Your task to perform on an android device: open app "Spotify: Music and Podcasts" (install if not already installed) Image 0: 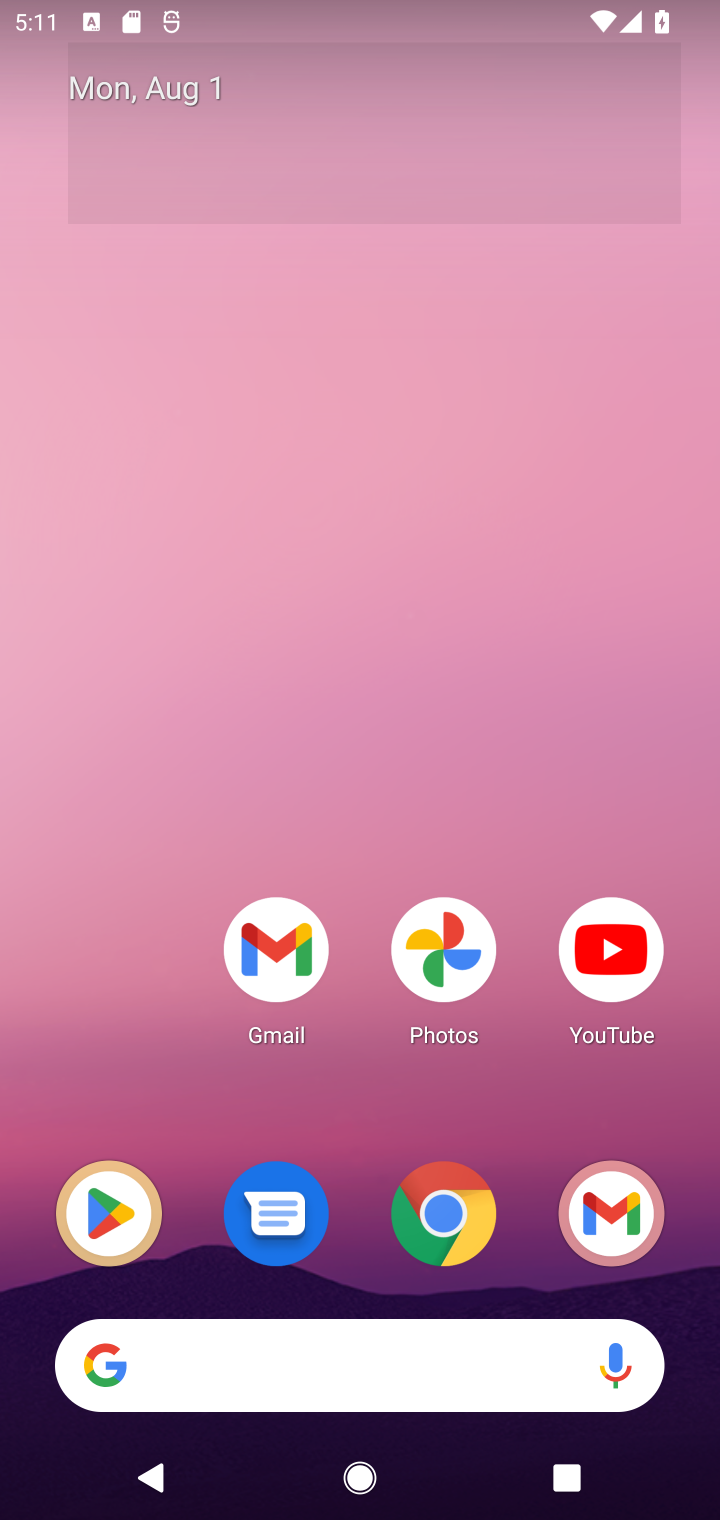
Step 0: drag from (674, 1100) to (632, 109)
Your task to perform on an android device: open app "Spotify: Music and Podcasts" (install if not already installed) Image 1: 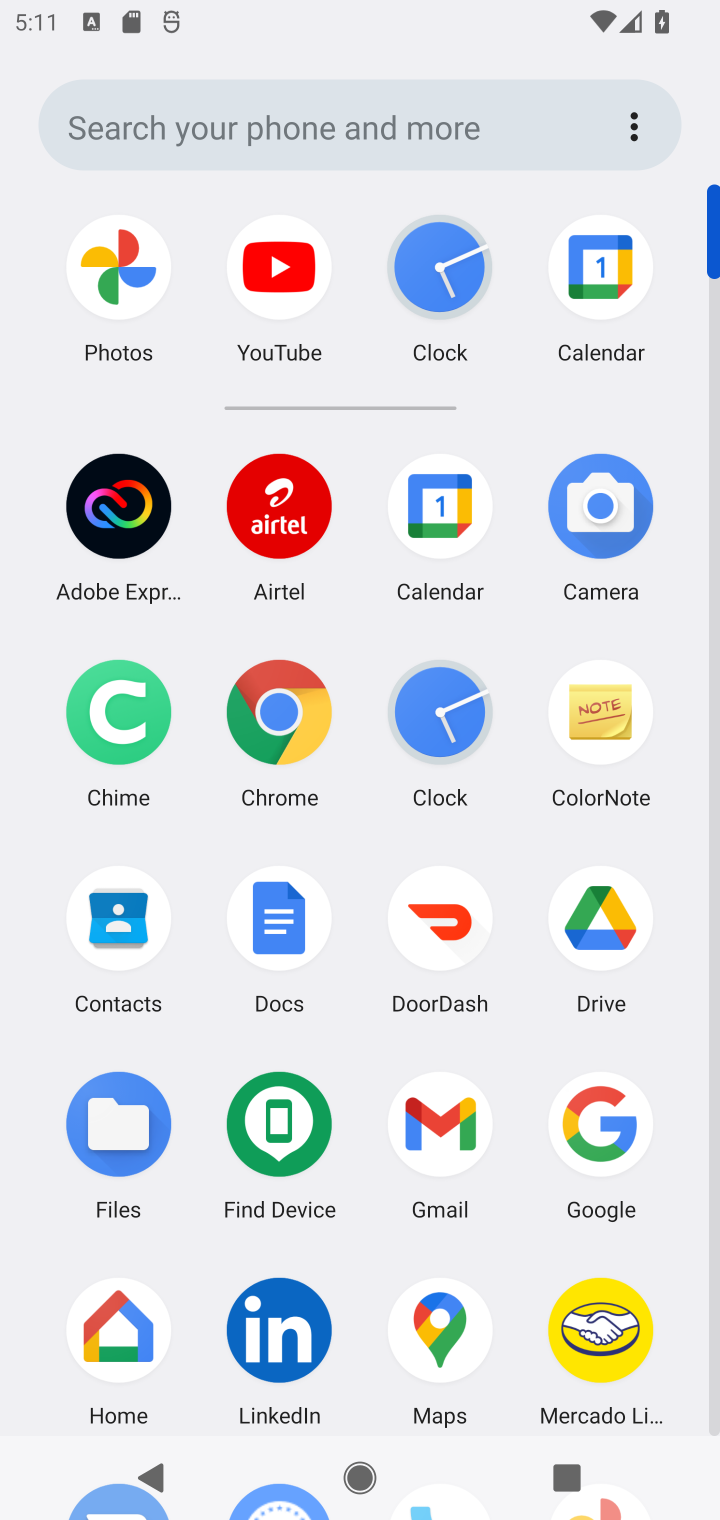
Step 1: drag from (371, 1250) to (450, 664)
Your task to perform on an android device: open app "Spotify: Music and Podcasts" (install if not already installed) Image 2: 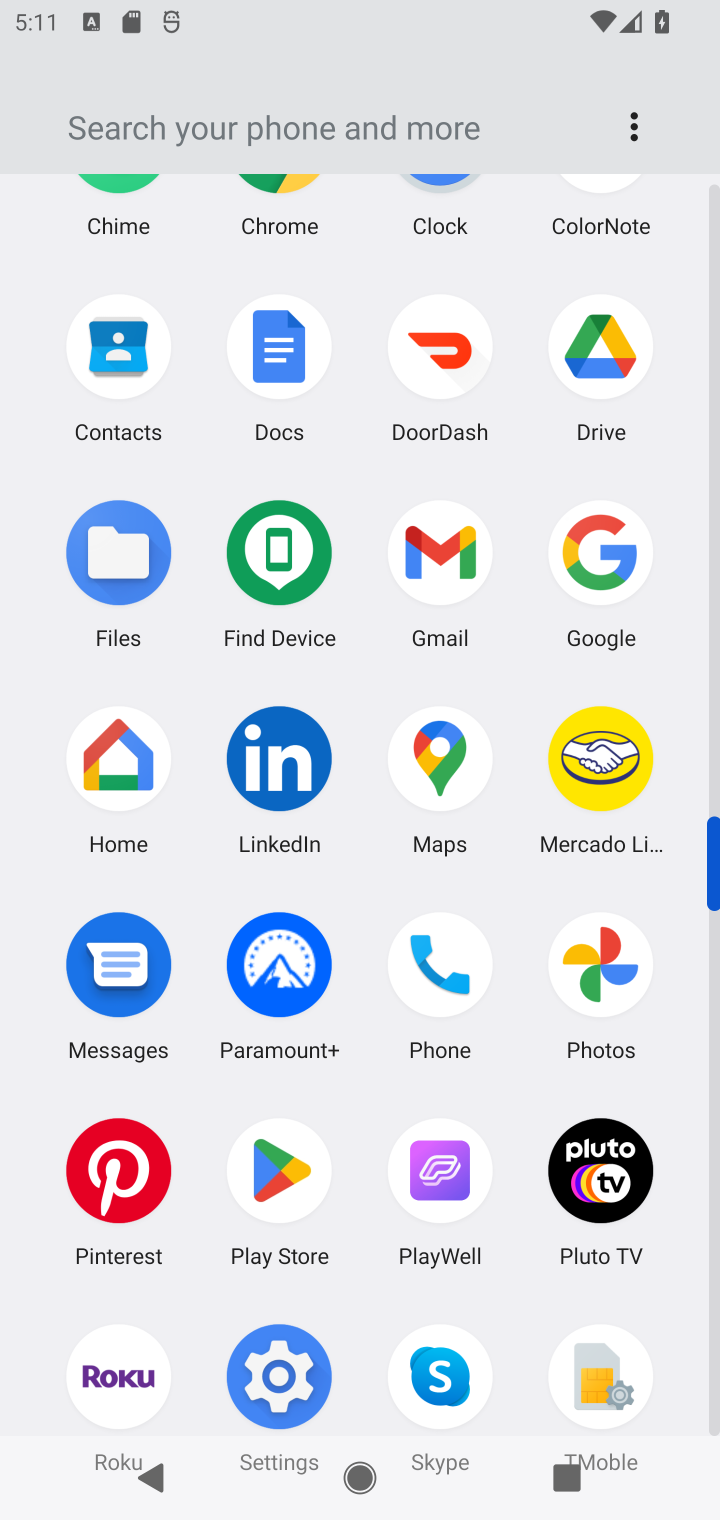
Step 2: click (277, 1171)
Your task to perform on an android device: open app "Spotify: Music and Podcasts" (install if not already installed) Image 3: 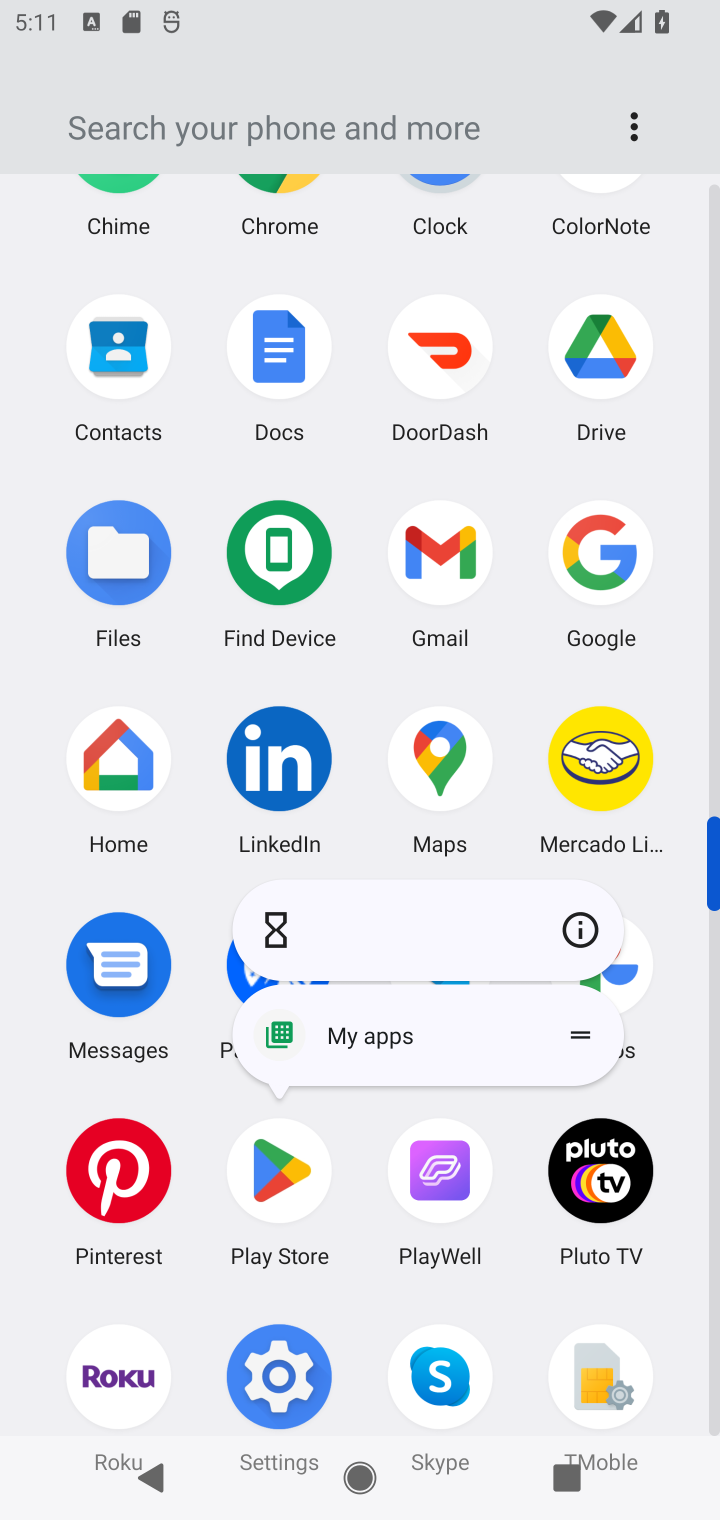
Step 3: click (277, 1169)
Your task to perform on an android device: open app "Spotify: Music and Podcasts" (install if not already installed) Image 4: 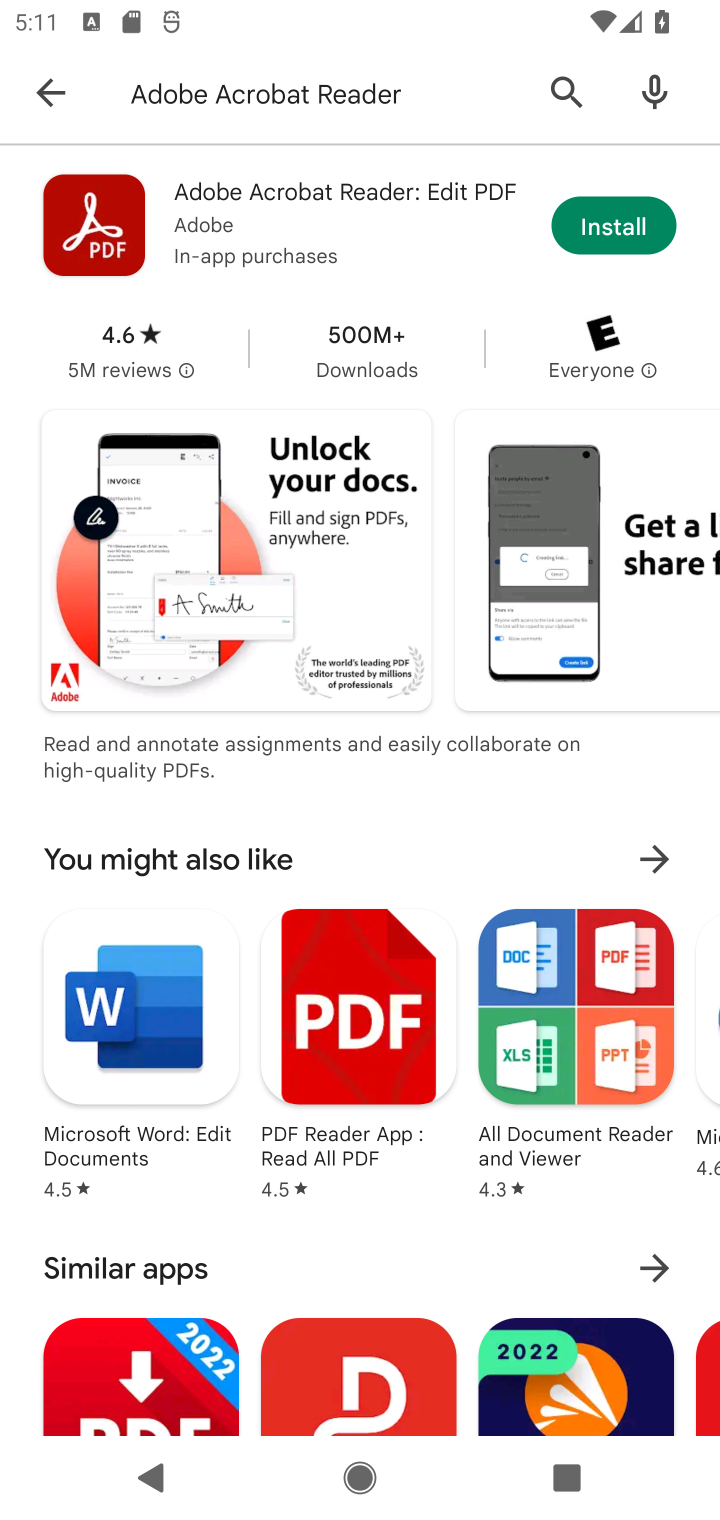
Step 4: click (465, 60)
Your task to perform on an android device: open app "Spotify: Music and Podcasts" (install if not already installed) Image 5: 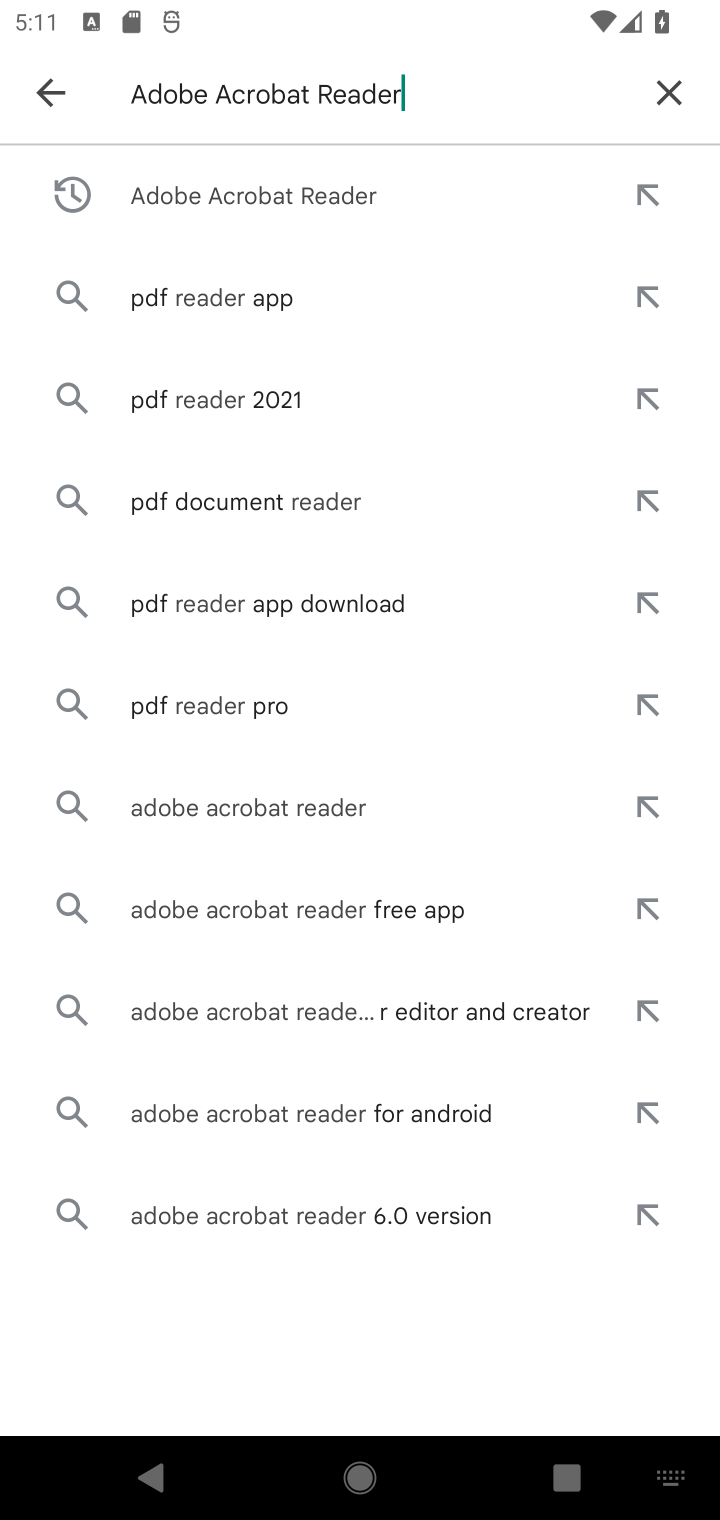
Step 5: click (660, 96)
Your task to perform on an android device: open app "Spotify: Music and Podcasts" (install if not already installed) Image 6: 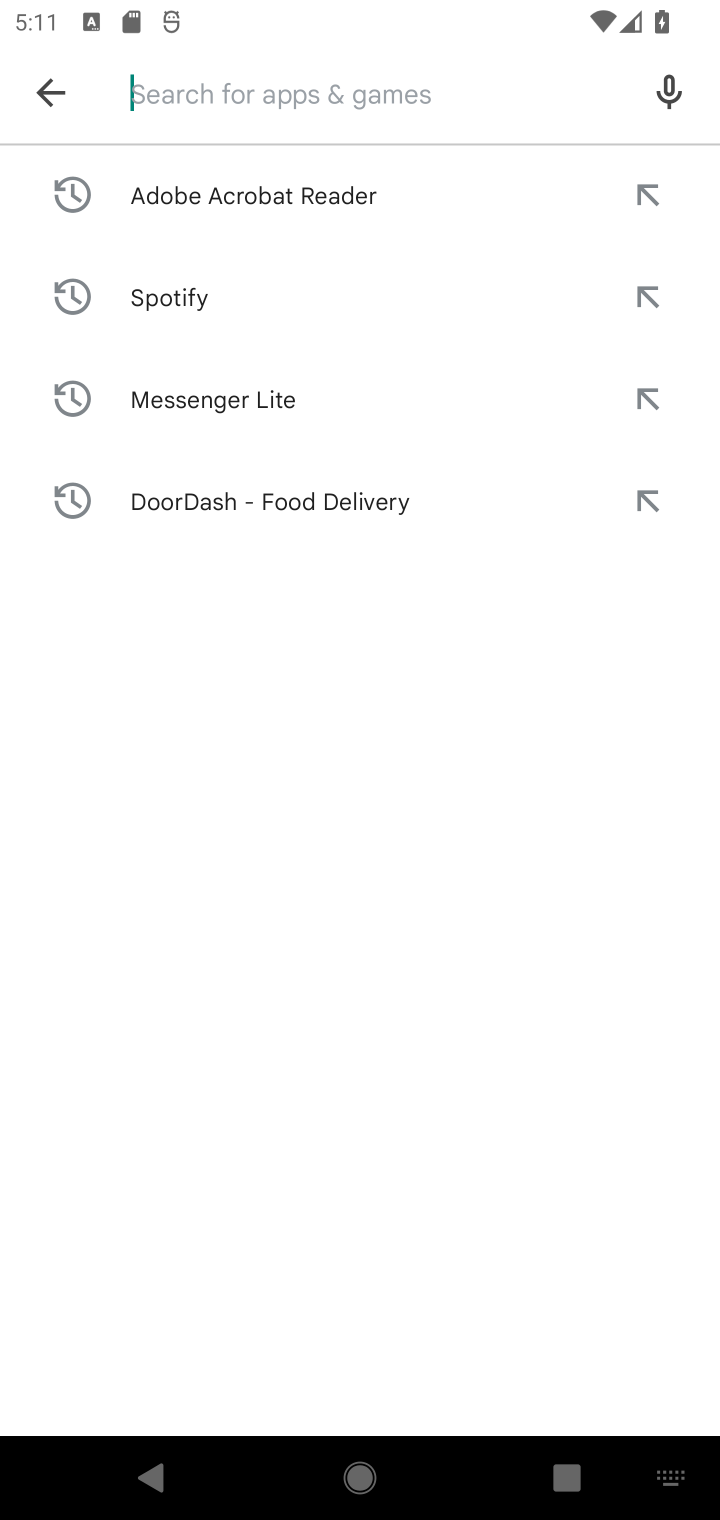
Step 6: type "Spotify: Music and Podcasts"
Your task to perform on an android device: open app "Spotify: Music and Podcasts" (install if not already installed) Image 7: 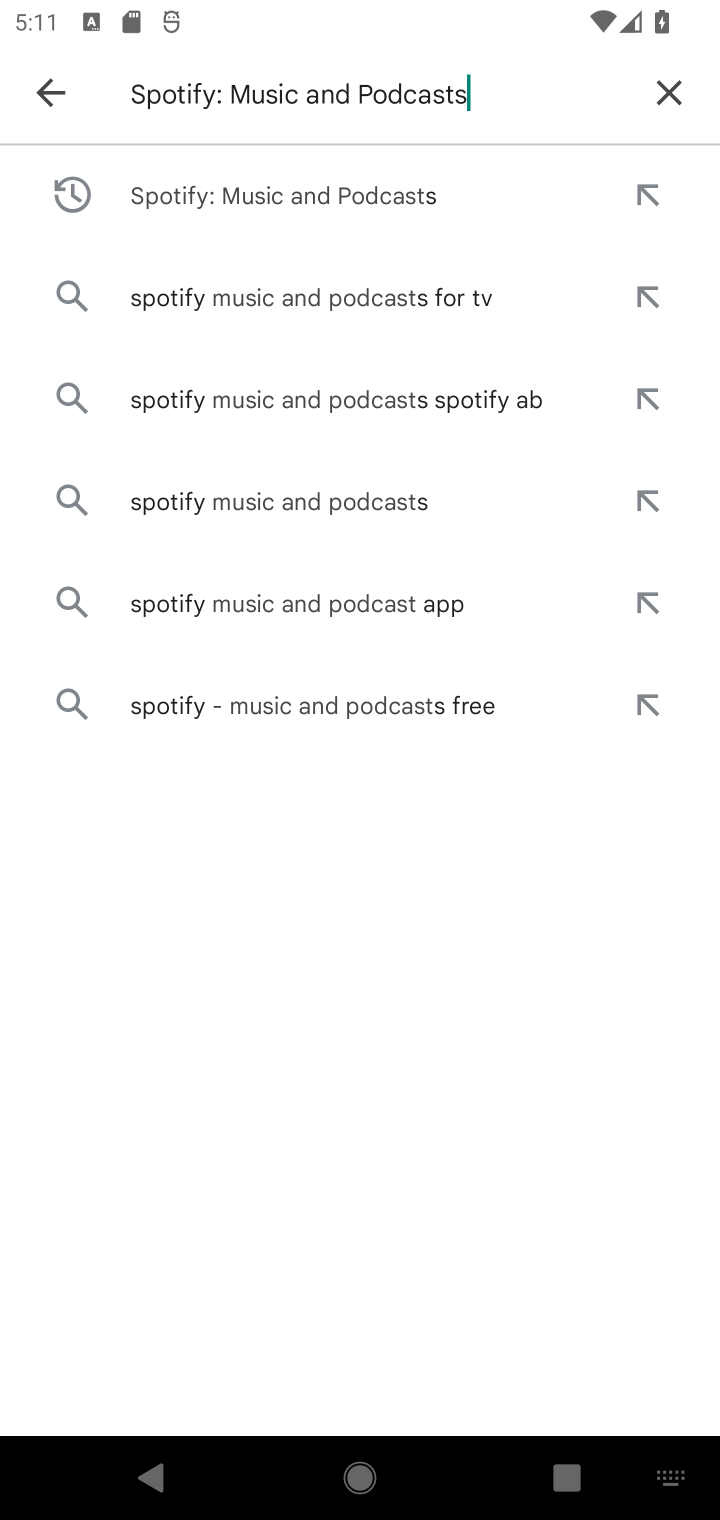
Step 7: press enter
Your task to perform on an android device: open app "Spotify: Music and Podcasts" (install if not already installed) Image 8: 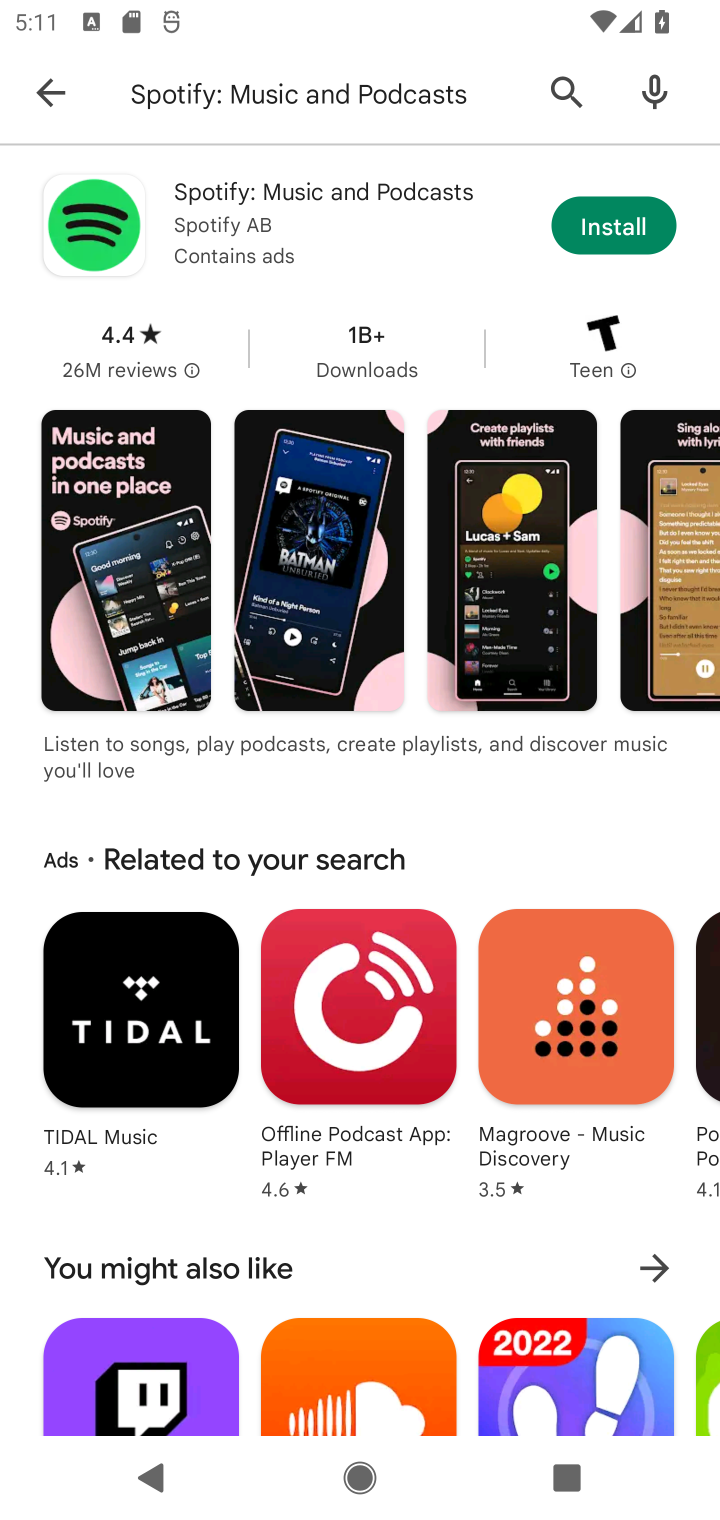
Step 8: click (641, 240)
Your task to perform on an android device: open app "Spotify: Music and Podcasts" (install if not already installed) Image 9: 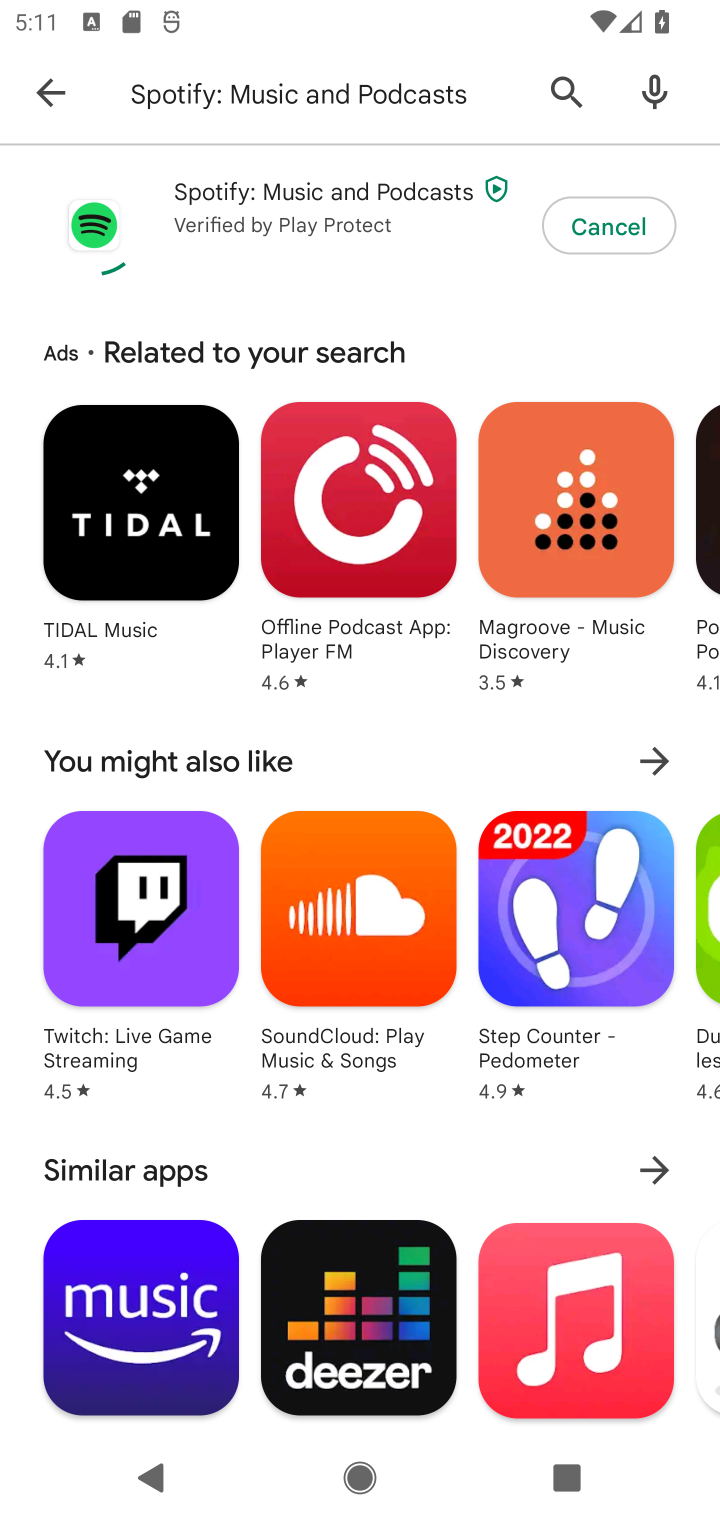
Step 9: click (669, 370)
Your task to perform on an android device: open app "Spotify: Music and Podcasts" (install if not already installed) Image 10: 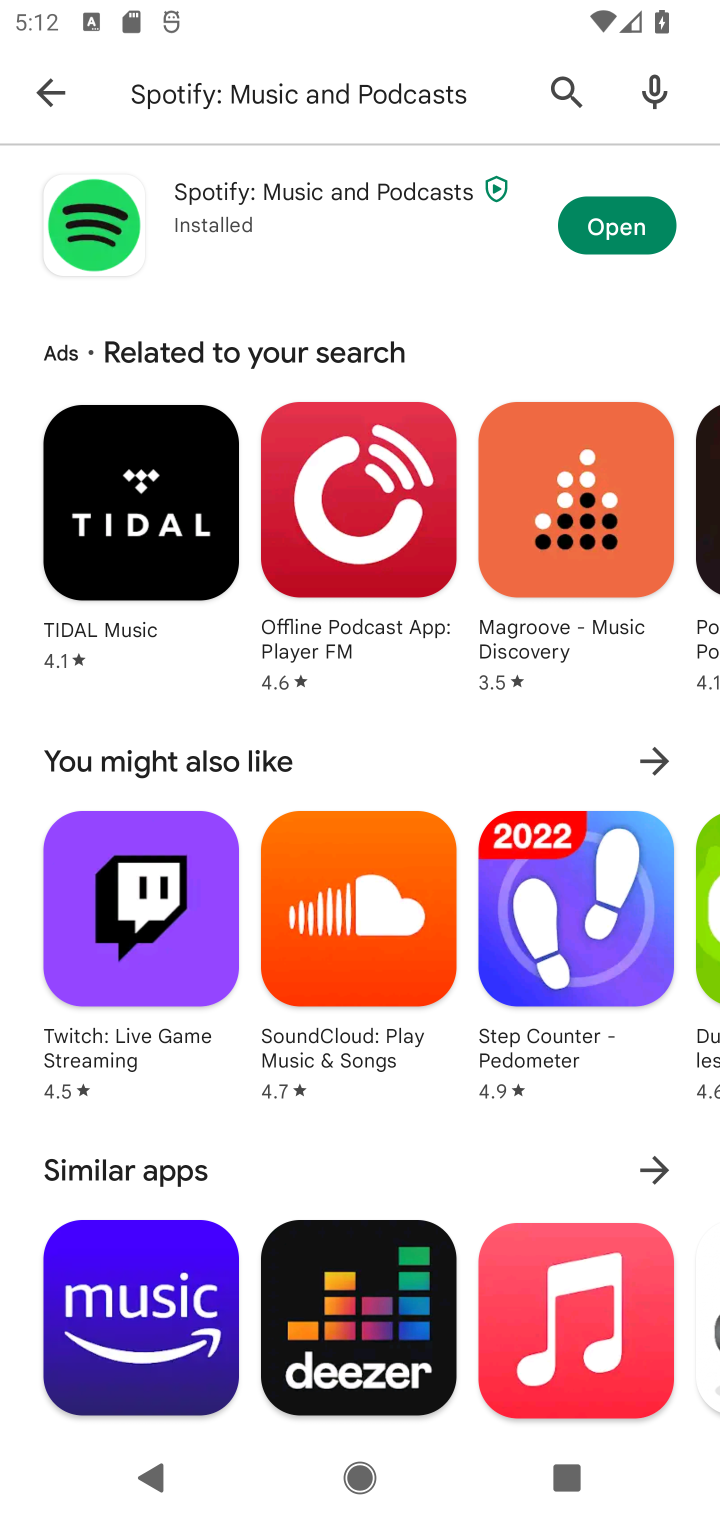
Step 10: click (591, 235)
Your task to perform on an android device: open app "Spotify: Music and Podcasts" (install if not already installed) Image 11: 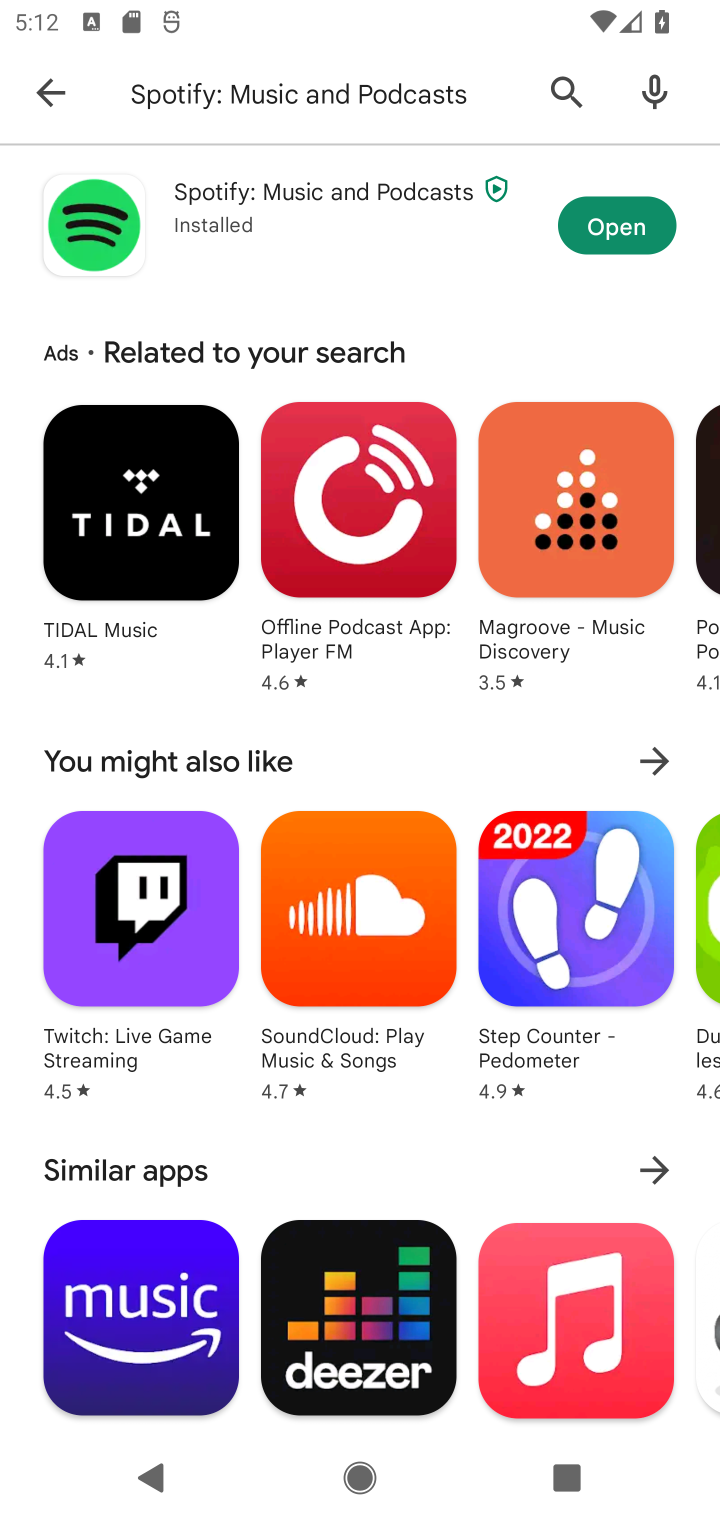
Step 11: click (562, 185)
Your task to perform on an android device: open app "Spotify: Music and Podcasts" (install if not already installed) Image 12: 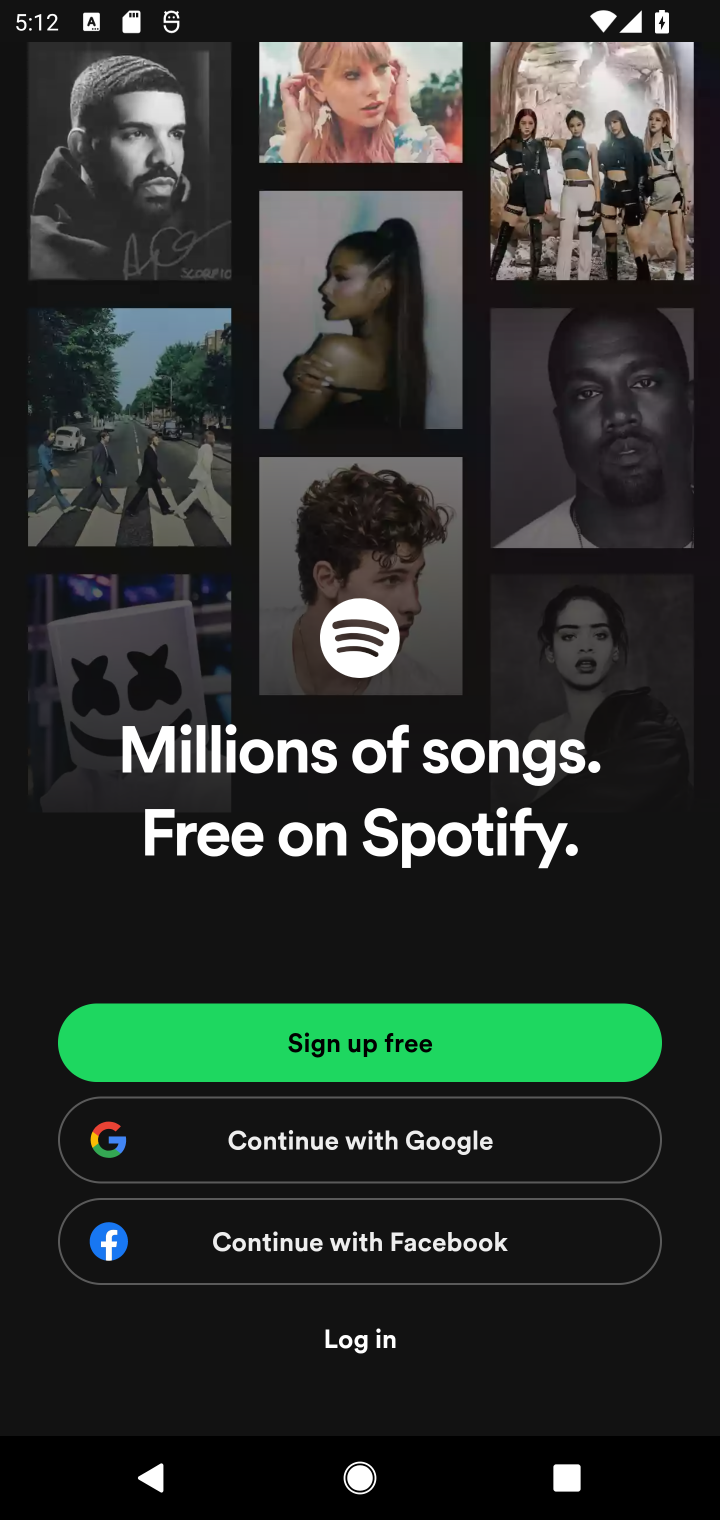
Step 12: task complete